Your task to perform on an android device: Show me productivity apps on the Play Store Image 0: 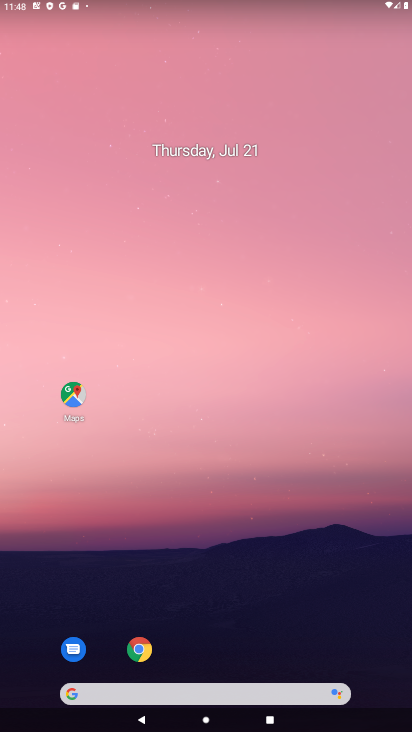
Step 0: drag from (227, 693) to (171, 57)
Your task to perform on an android device: Show me productivity apps on the Play Store Image 1: 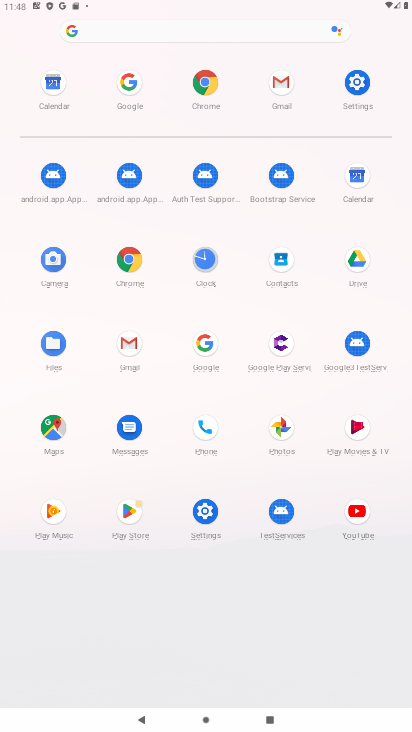
Step 1: click (133, 512)
Your task to perform on an android device: Show me productivity apps on the Play Store Image 2: 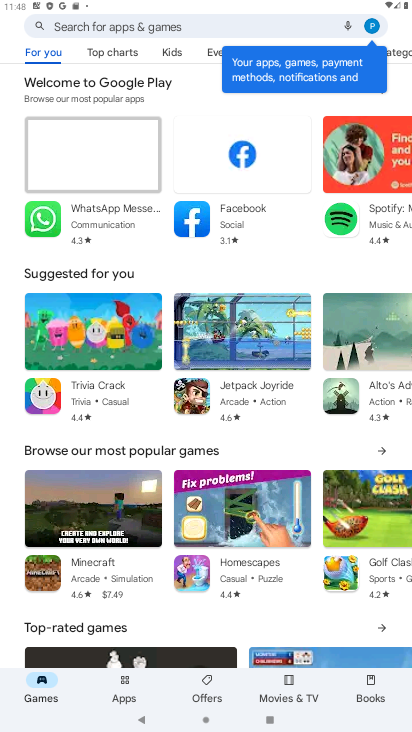
Step 2: click (129, 692)
Your task to perform on an android device: Show me productivity apps on the Play Store Image 3: 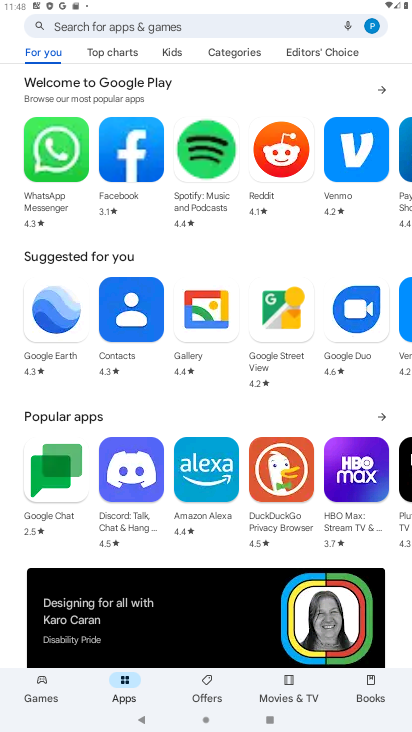
Step 3: click (232, 49)
Your task to perform on an android device: Show me productivity apps on the Play Store Image 4: 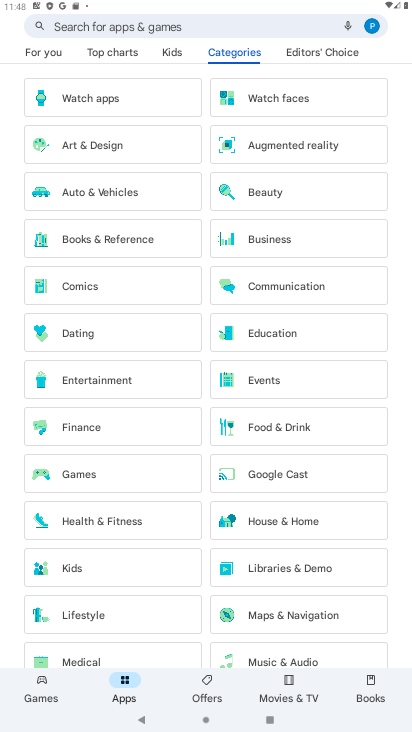
Step 4: drag from (184, 642) to (172, 410)
Your task to perform on an android device: Show me productivity apps on the Play Store Image 5: 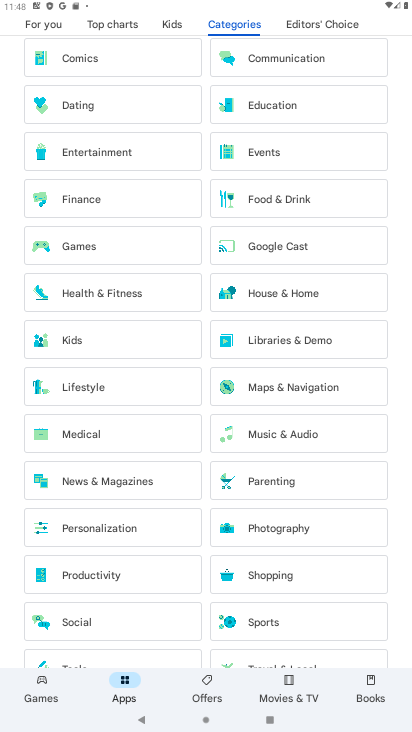
Step 5: click (107, 571)
Your task to perform on an android device: Show me productivity apps on the Play Store Image 6: 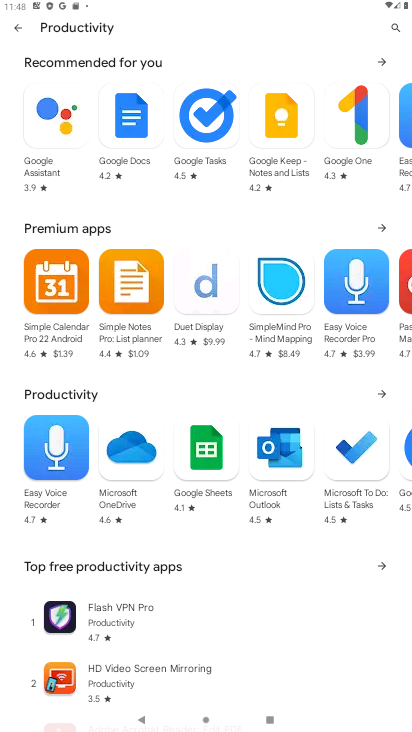
Step 6: task complete